Your task to perform on an android device: View the shopping cart on target.com. Search for alienware area 51 on target.com, select the first entry, and add it to the cart. Image 0: 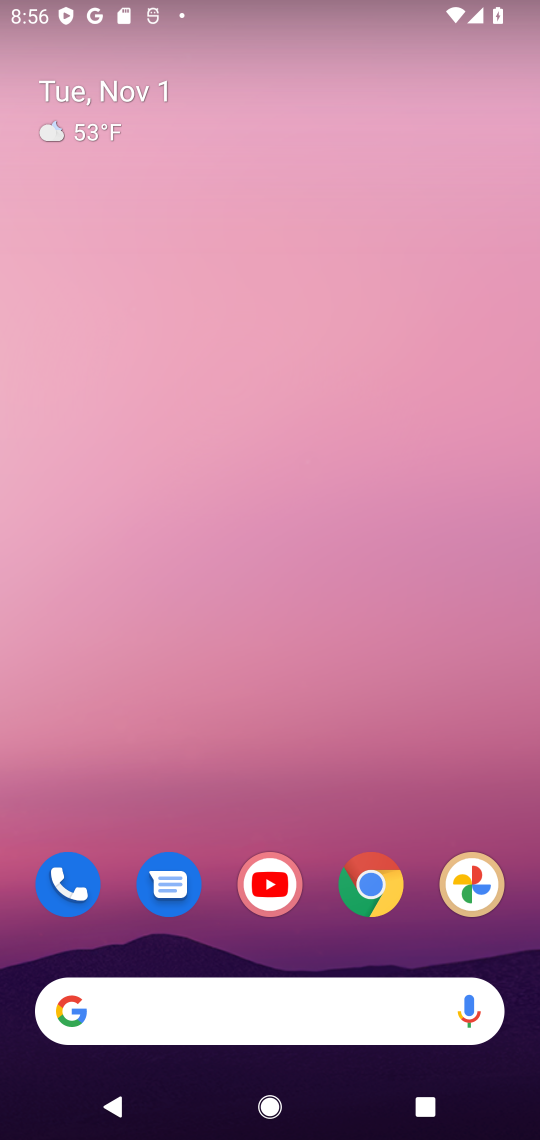
Step 0: click (368, 888)
Your task to perform on an android device: View the shopping cart on target.com. Search for alienware area 51 on target.com, select the first entry, and add it to the cart. Image 1: 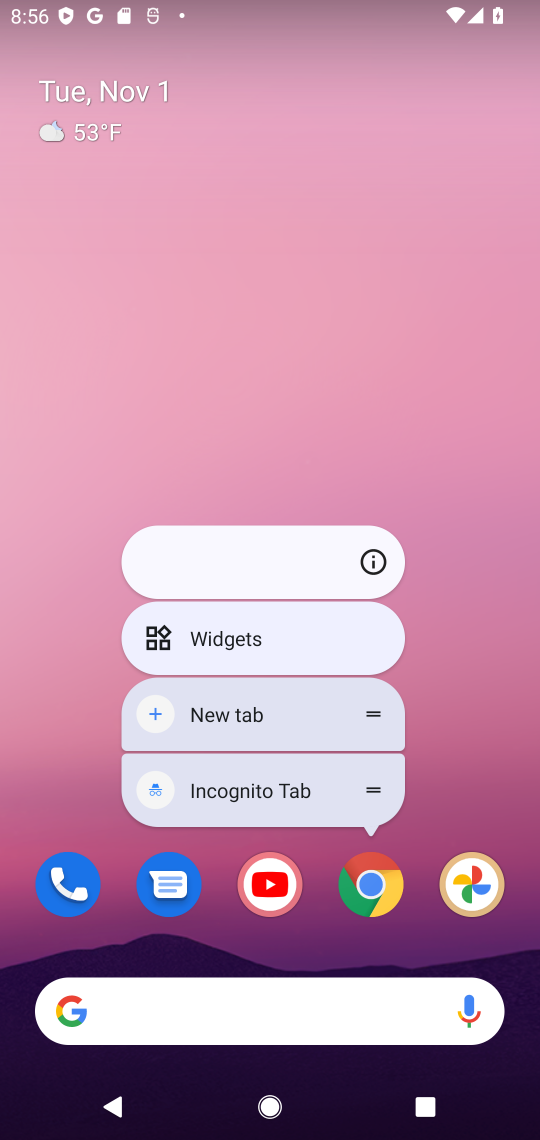
Step 1: click (364, 883)
Your task to perform on an android device: View the shopping cart on target.com. Search for alienware area 51 on target.com, select the first entry, and add it to the cart. Image 2: 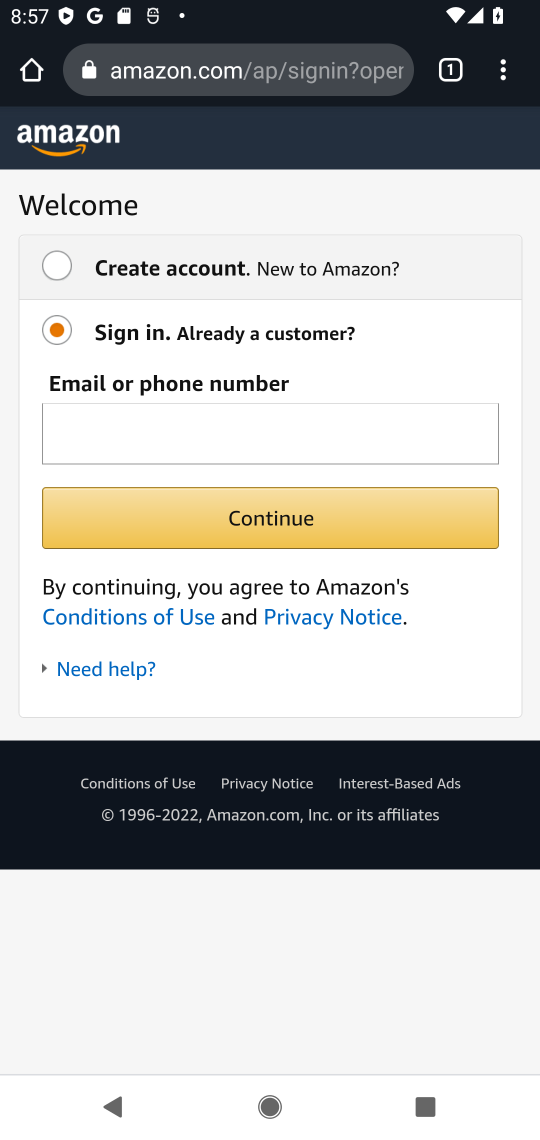
Step 2: click (361, 69)
Your task to perform on an android device: View the shopping cart on target.com. Search for alienware area 51 on target.com, select the first entry, and add it to the cart. Image 3: 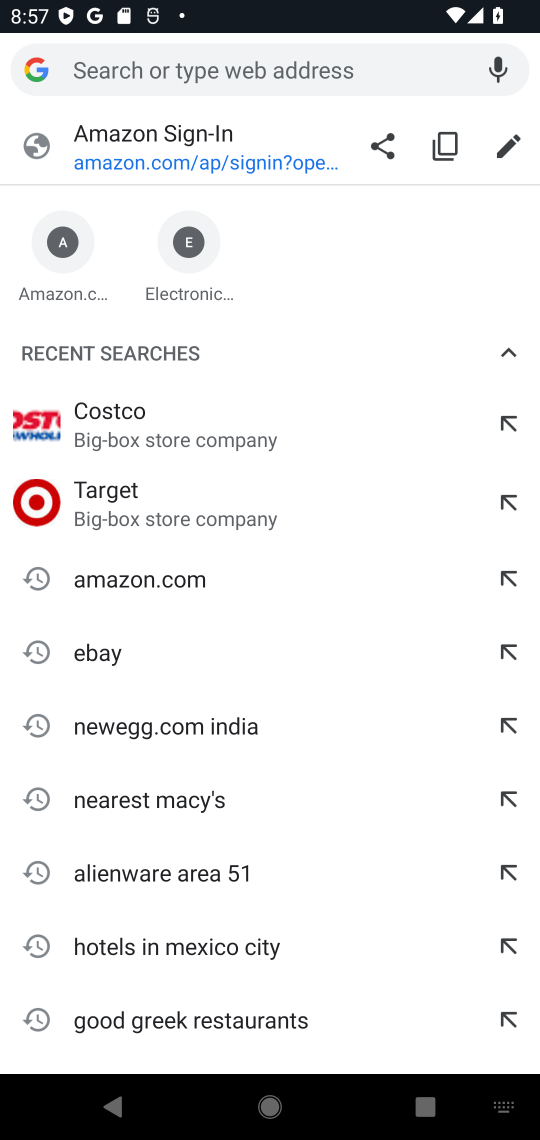
Step 3: type "target"
Your task to perform on an android device: View the shopping cart on target.com. Search for alienware area 51 on target.com, select the first entry, and add it to the cart. Image 4: 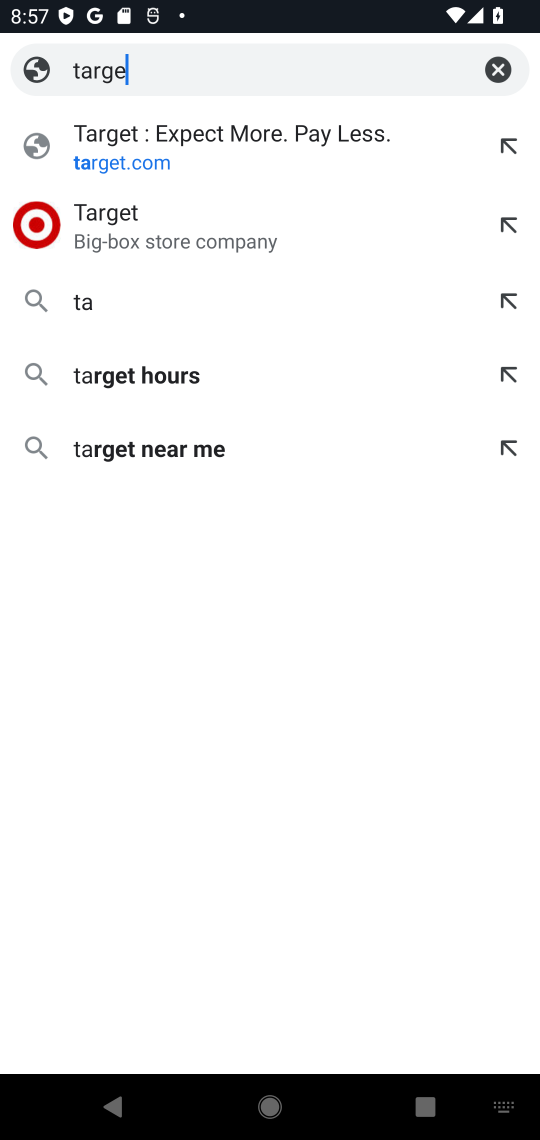
Step 4: press enter
Your task to perform on an android device: View the shopping cart on target.com. Search for alienware area 51 on target.com, select the first entry, and add it to the cart. Image 5: 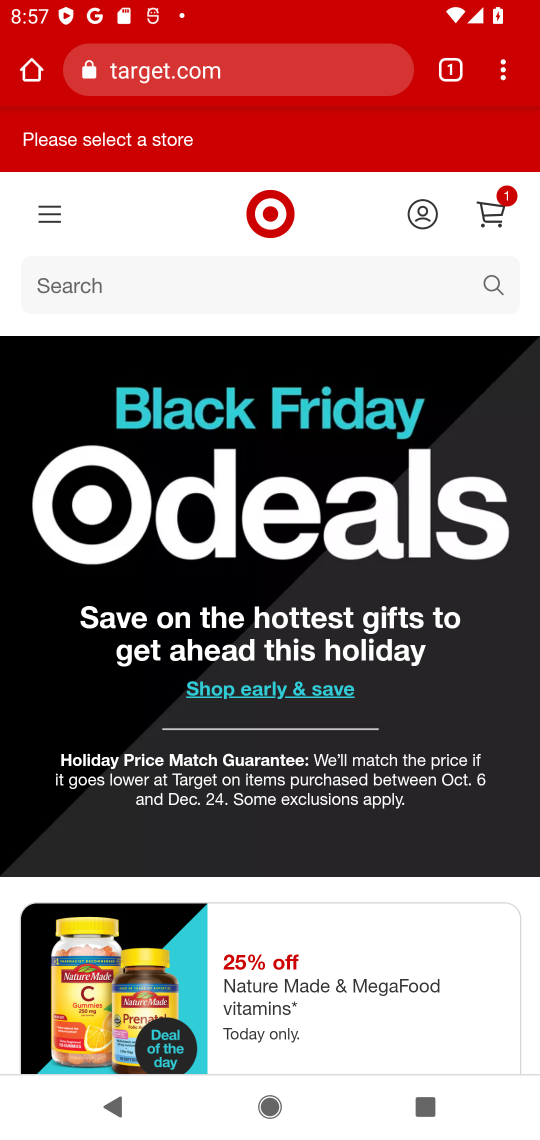
Step 5: click (493, 284)
Your task to perform on an android device: View the shopping cart on target.com. Search for alienware area 51 on target.com, select the first entry, and add it to the cart. Image 6: 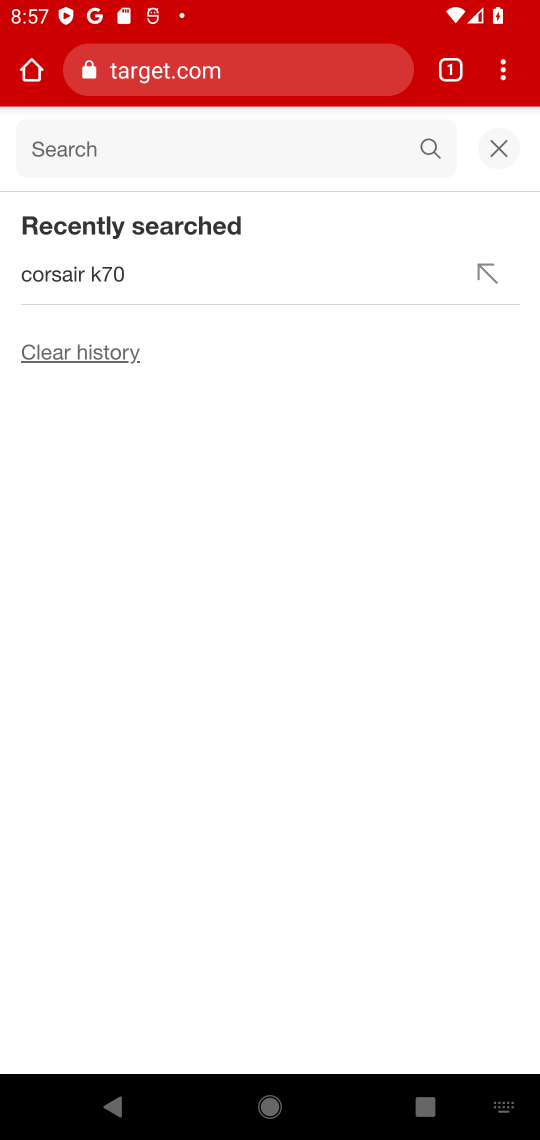
Step 6: type "alienware area 51 on target.com"
Your task to perform on an android device: View the shopping cart on target.com. Search for alienware area 51 on target.com, select the first entry, and add it to the cart. Image 7: 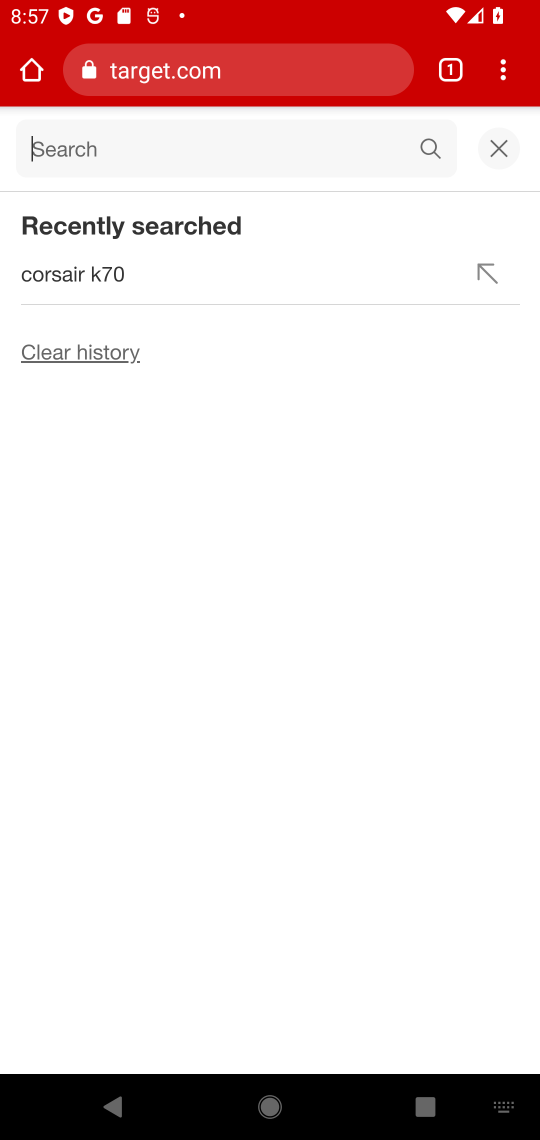
Step 7: press enter
Your task to perform on an android device: View the shopping cart on target.com. Search for alienware area 51 on target.com, select the first entry, and add it to the cart. Image 8: 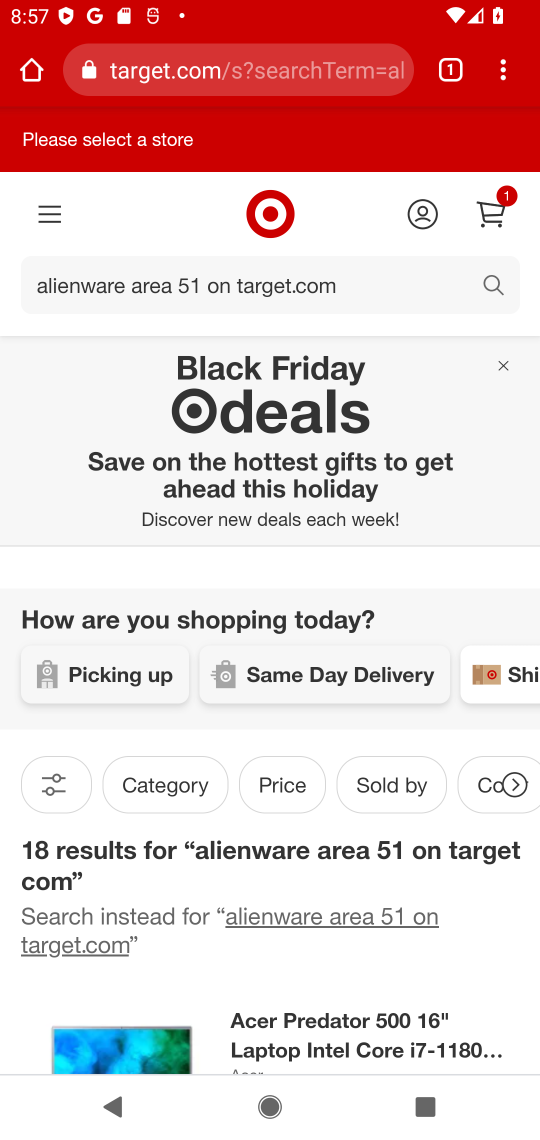
Step 8: drag from (311, 971) to (290, 826)
Your task to perform on an android device: View the shopping cart on target.com. Search for alienware area 51 on target.com, select the first entry, and add it to the cart. Image 9: 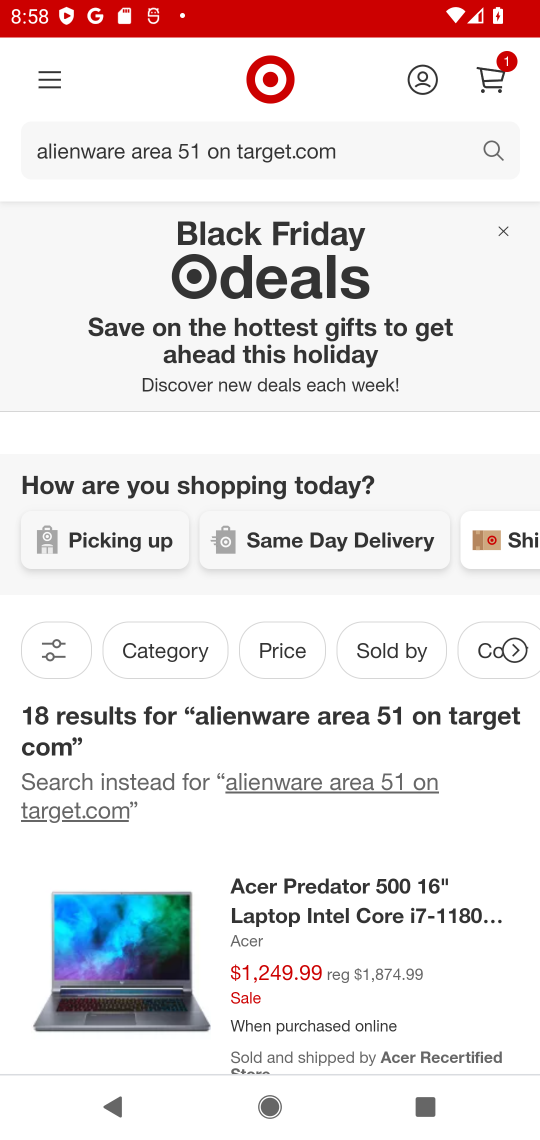
Step 9: drag from (423, 976) to (398, 711)
Your task to perform on an android device: View the shopping cart on target.com. Search for alienware area 51 on target.com, select the first entry, and add it to the cart. Image 10: 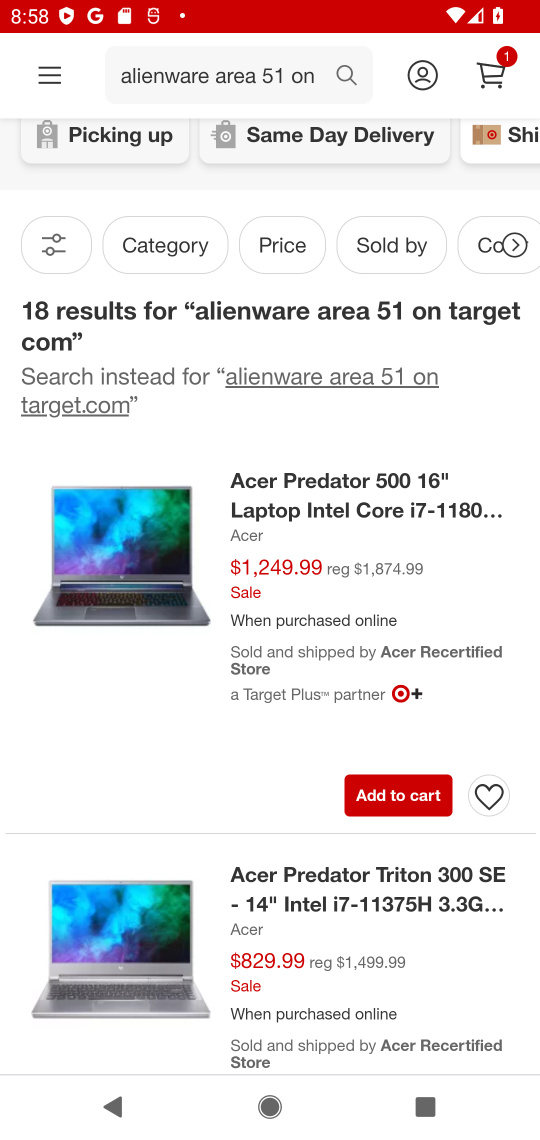
Step 10: drag from (393, 949) to (370, 653)
Your task to perform on an android device: View the shopping cart on target.com. Search for alienware area 51 on target.com, select the first entry, and add it to the cart. Image 11: 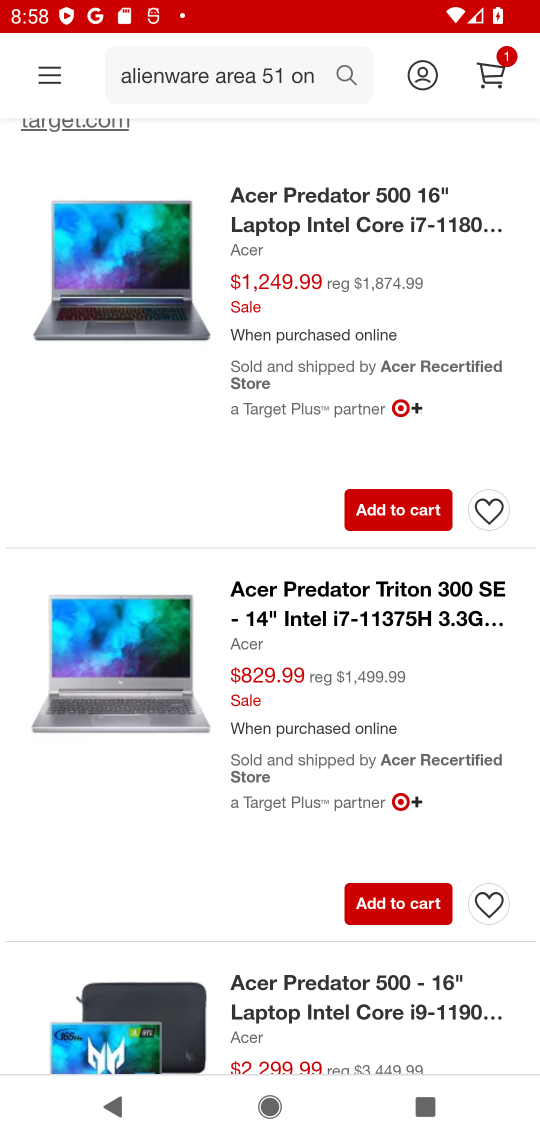
Step 11: click (289, 65)
Your task to perform on an android device: View the shopping cart on target.com. Search for alienware area 51 on target.com, select the first entry, and add it to the cart. Image 12: 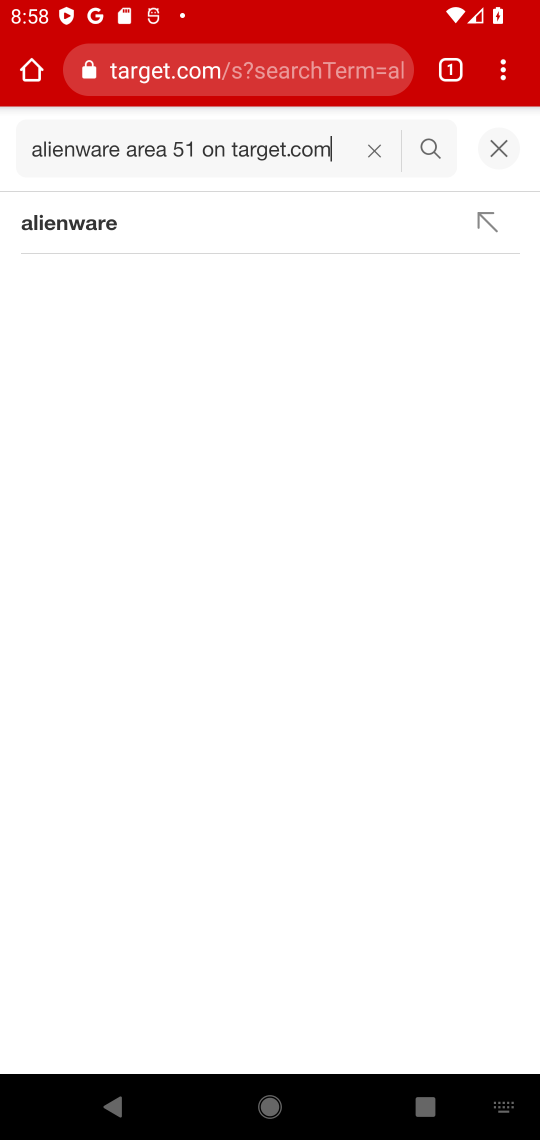
Step 12: click (368, 152)
Your task to perform on an android device: View the shopping cart on target.com. Search for alienware area 51 on target.com, select the first entry, and add it to the cart. Image 13: 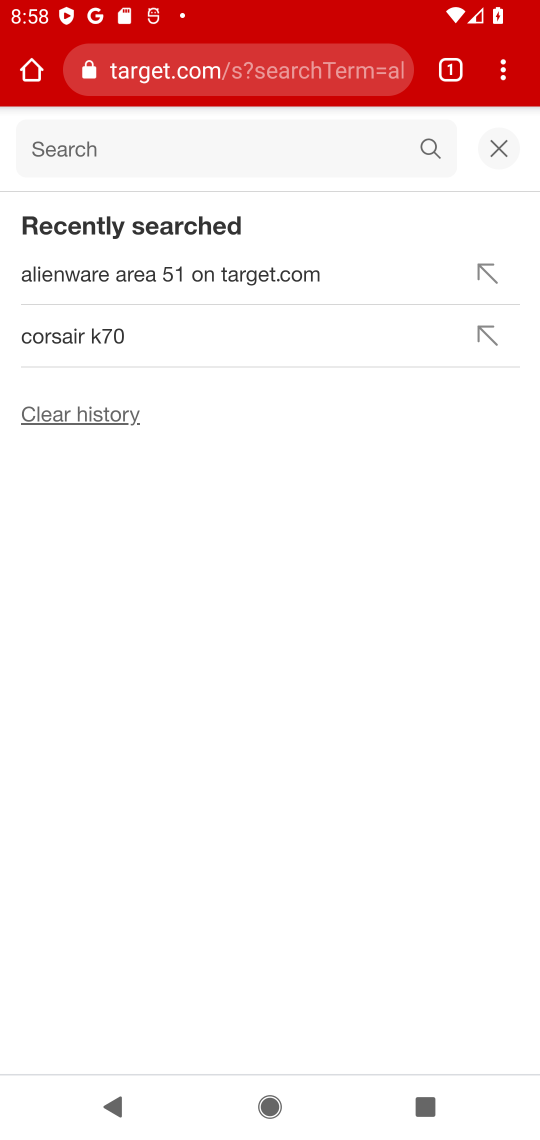
Step 13: click (118, 156)
Your task to perform on an android device: View the shopping cart on target.com. Search for alienware area 51 on target.com, select the first entry, and add it to the cart. Image 14: 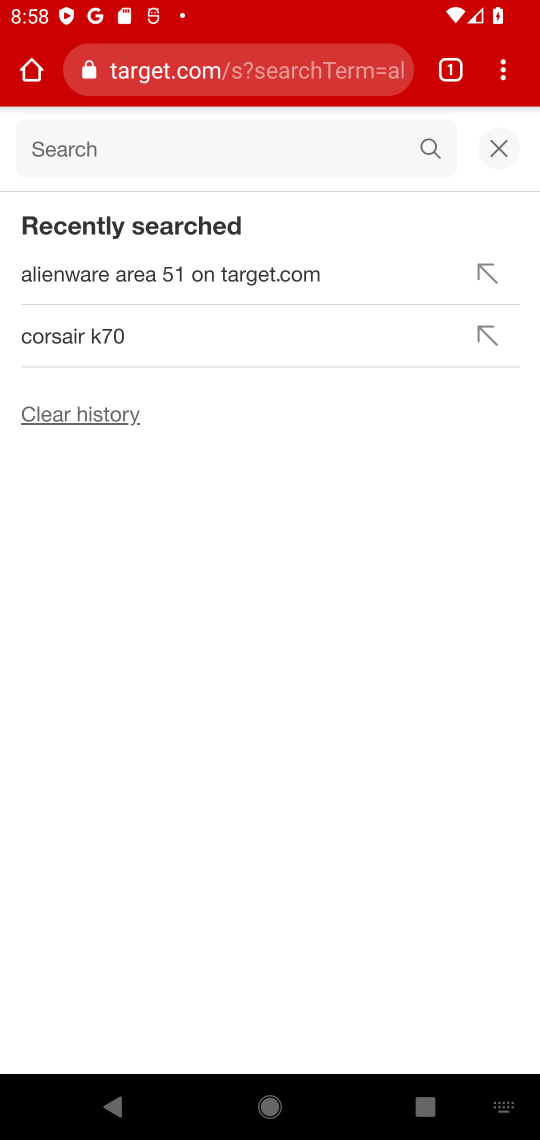
Step 14: type "alienware area 51"
Your task to perform on an android device: View the shopping cart on target.com. Search for alienware area 51 on target.com, select the first entry, and add it to the cart. Image 15: 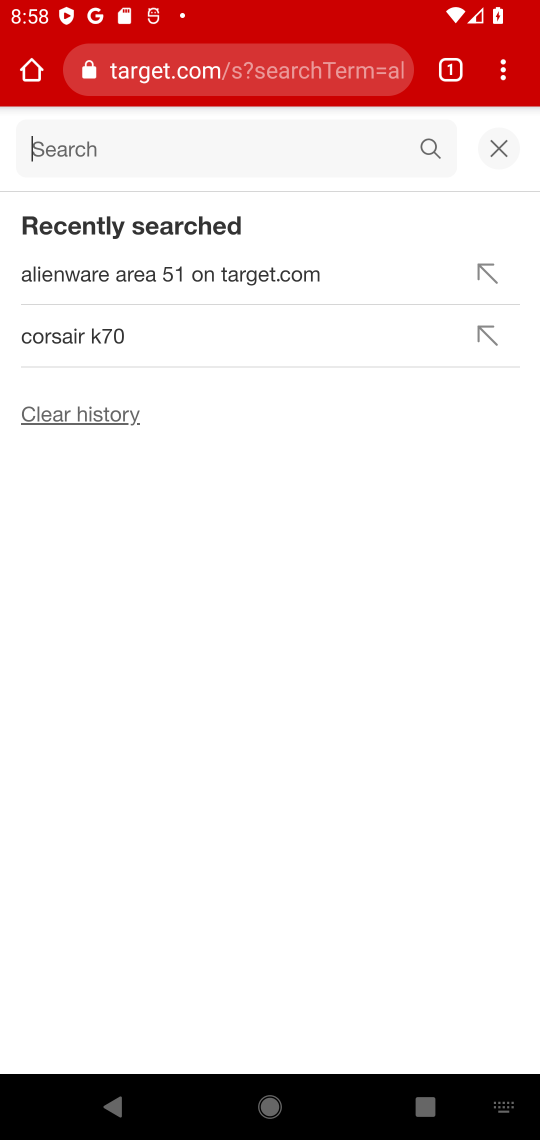
Step 15: press enter
Your task to perform on an android device: View the shopping cart on target.com. Search for alienware area 51 on target.com, select the first entry, and add it to the cart. Image 16: 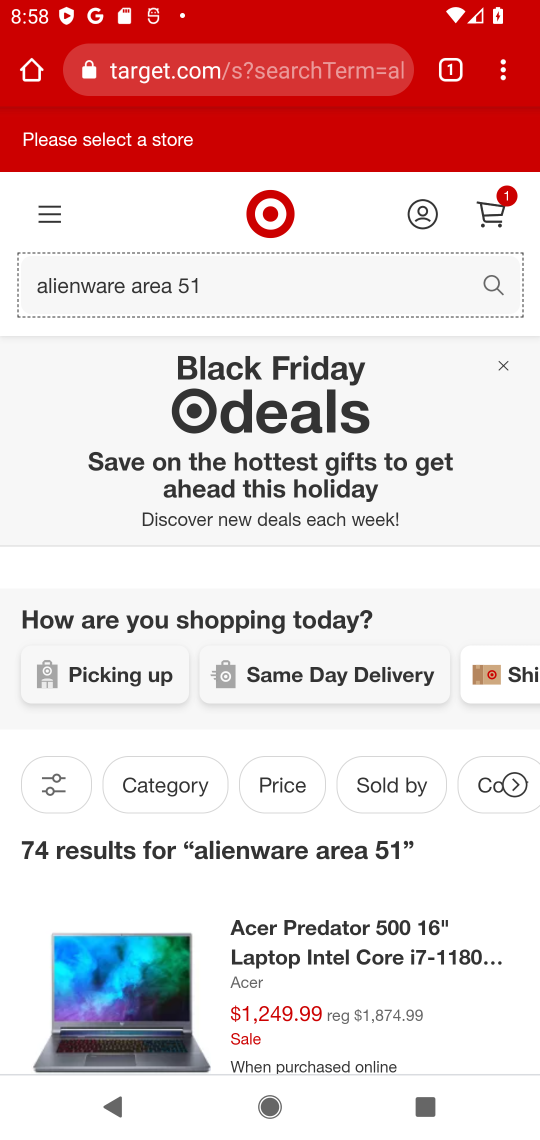
Step 16: drag from (333, 975) to (387, 598)
Your task to perform on an android device: View the shopping cart on target.com. Search for alienware area 51 on target.com, select the first entry, and add it to the cart. Image 17: 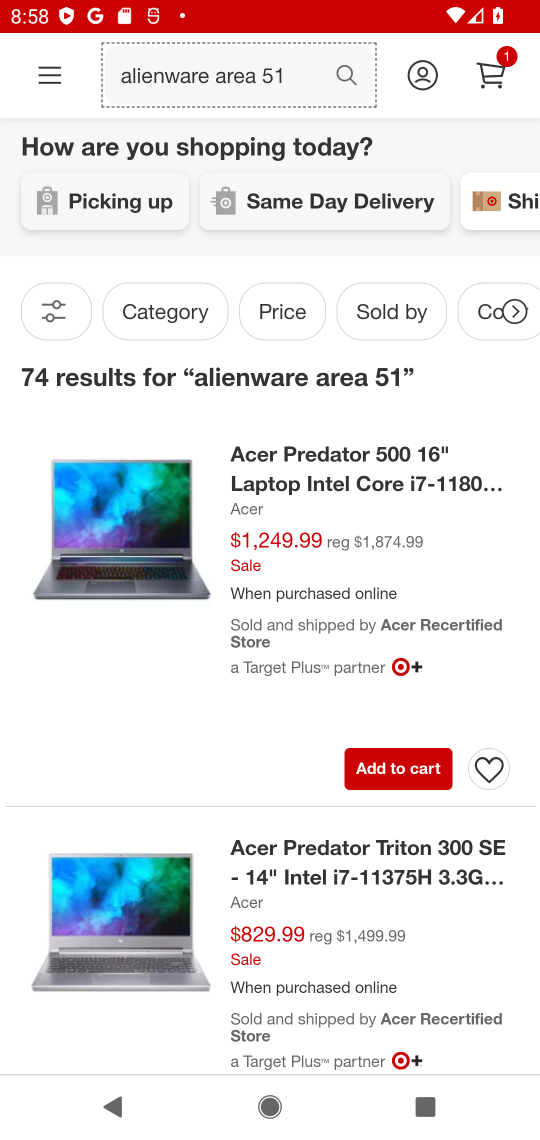
Step 17: drag from (328, 874) to (350, 496)
Your task to perform on an android device: View the shopping cart on target.com. Search for alienware area 51 on target.com, select the first entry, and add it to the cart. Image 18: 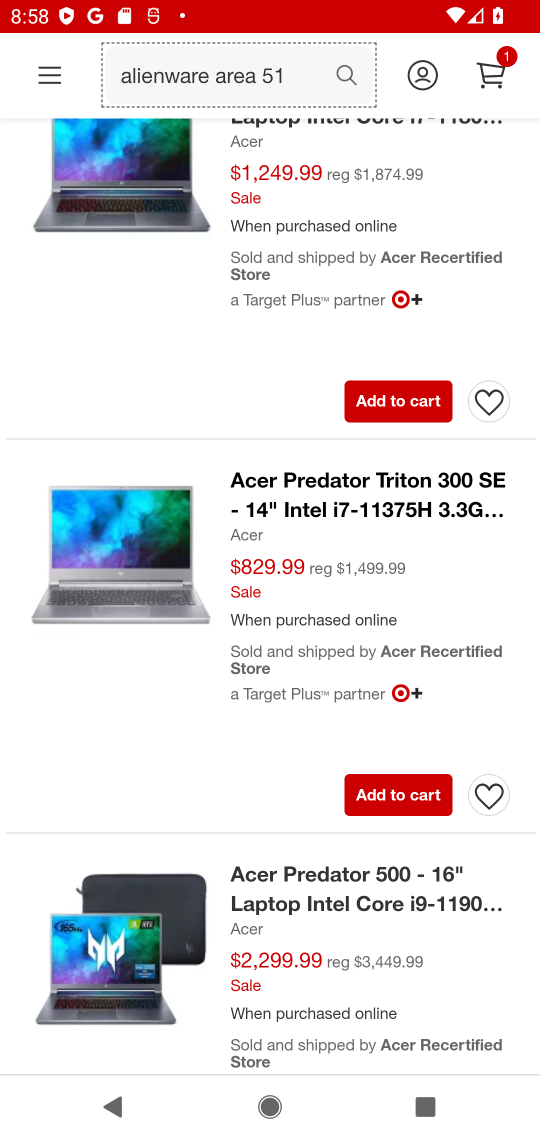
Step 18: drag from (382, 892) to (373, 534)
Your task to perform on an android device: View the shopping cart on target.com. Search for alienware area 51 on target.com, select the first entry, and add it to the cart. Image 19: 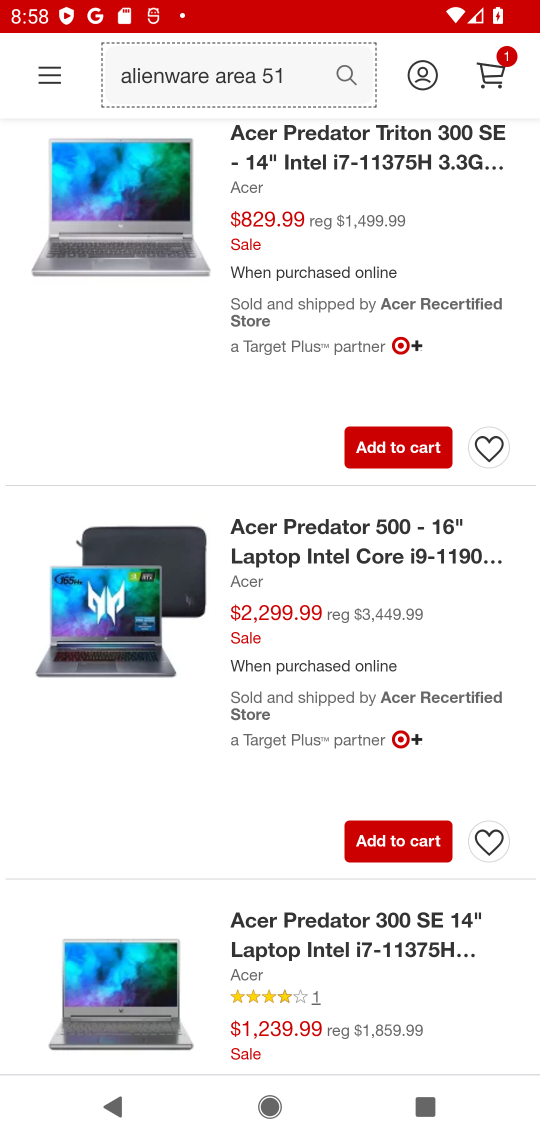
Step 19: drag from (365, 996) to (448, 636)
Your task to perform on an android device: View the shopping cart on target.com. Search for alienware area 51 on target.com, select the first entry, and add it to the cart. Image 20: 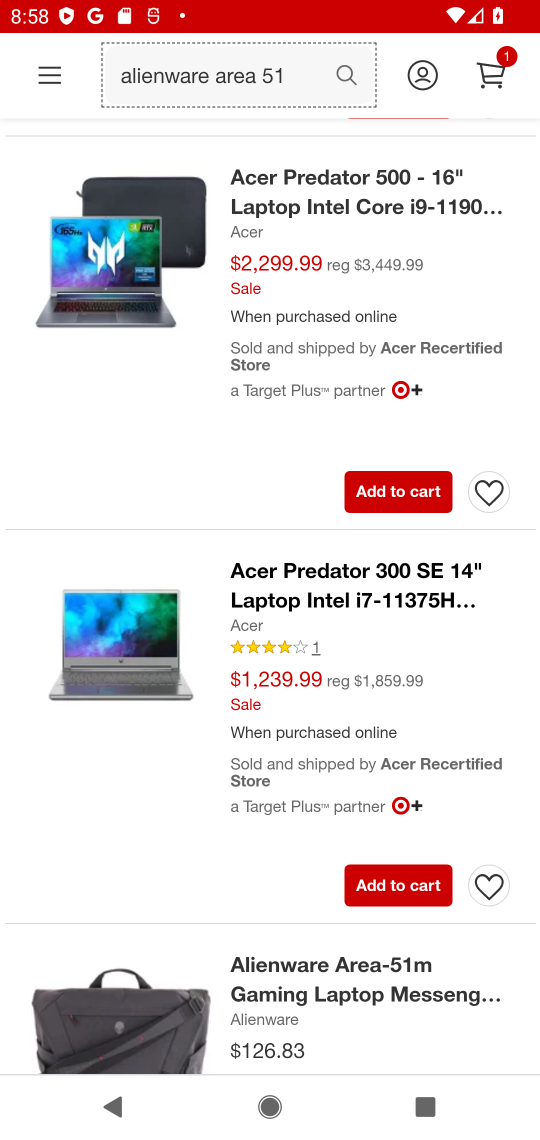
Step 20: drag from (313, 1004) to (307, 828)
Your task to perform on an android device: View the shopping cart on target.com. Search for alienware area 51 on target.com, select the first entry, and add it to the cart. Image 21: 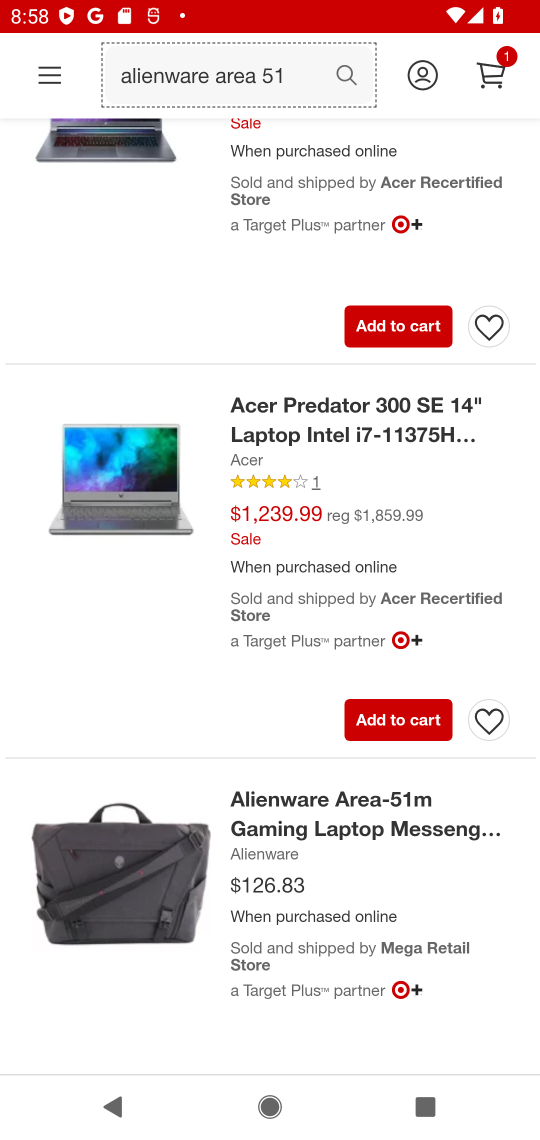
Step 21: click (138, 832)
Your task to perform on an android device: View the shopping cart on target.com. Search for alienware area 51 on target.com, select the first entry, and add it to the cart. Image 22: 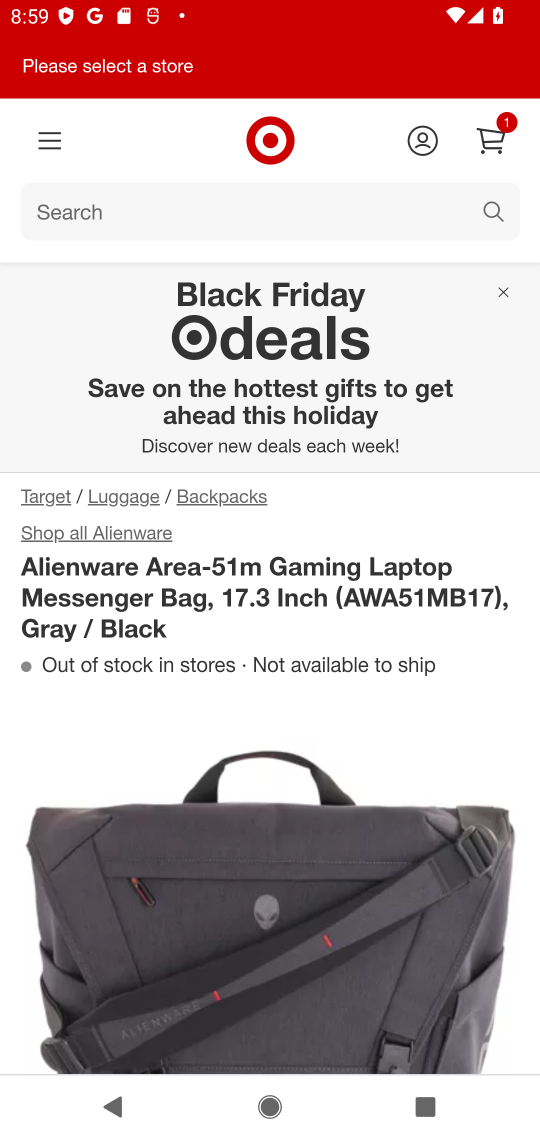
Step 22: drag from (321, 853) to (339, 428)
Your task to perform on an android device: View the shopping cart on target.com. Search for alienware area 51 on target.com, select the first entry, and add it to the cart. Image 23: 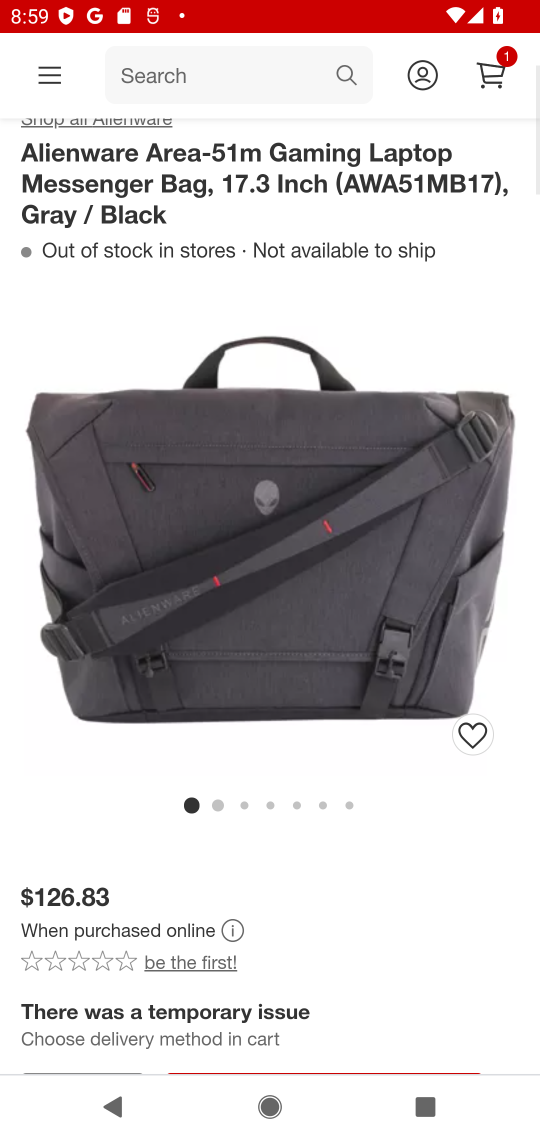
Step 23: drag from (336, 673) to (334, 541)
Your task to perform on an android device: View the shopping cart on target.com. Search for alienware area 51 on target.com, select the first entry, and add it to the cart. Image 24: 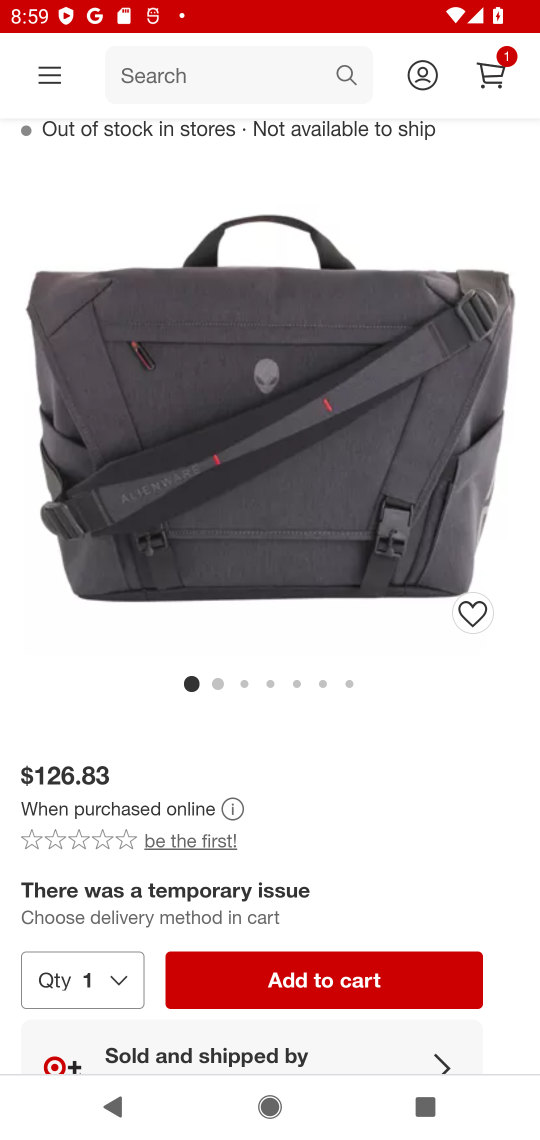
Step 24: click (355, 970)
Your task to perform on an android device: View the shopping cart on target.com. Search for alienware area 51 on target.com, select the first entry, and add it to the cart. Image 25: 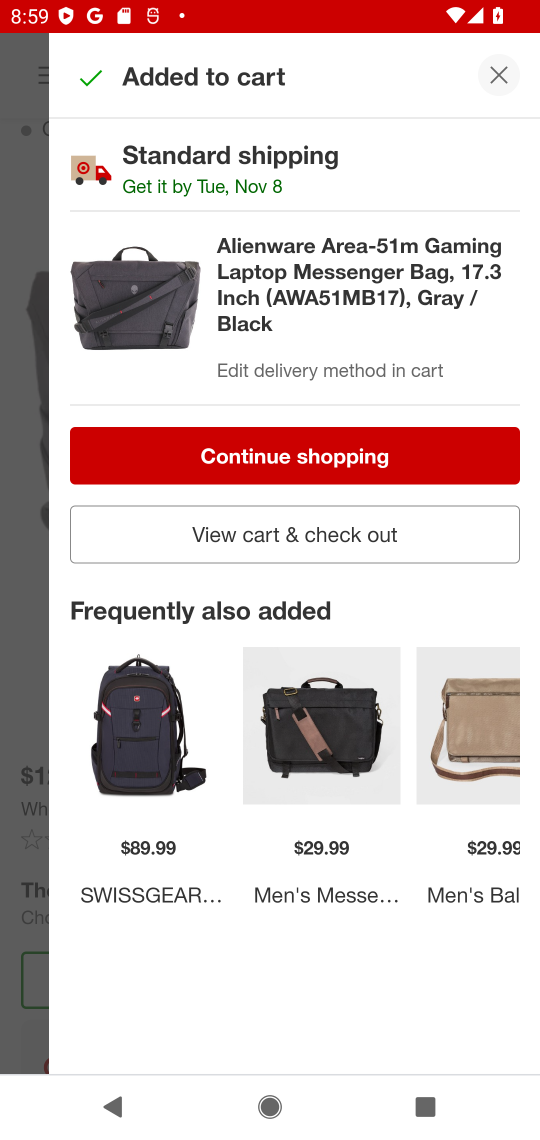
Step 25: task complete